Your task to perform on an android device: open app "Indeed Job Search" (install if not already installed) and enter user name: "quixotic@inbox.com" and password: "microphones" Image 0: 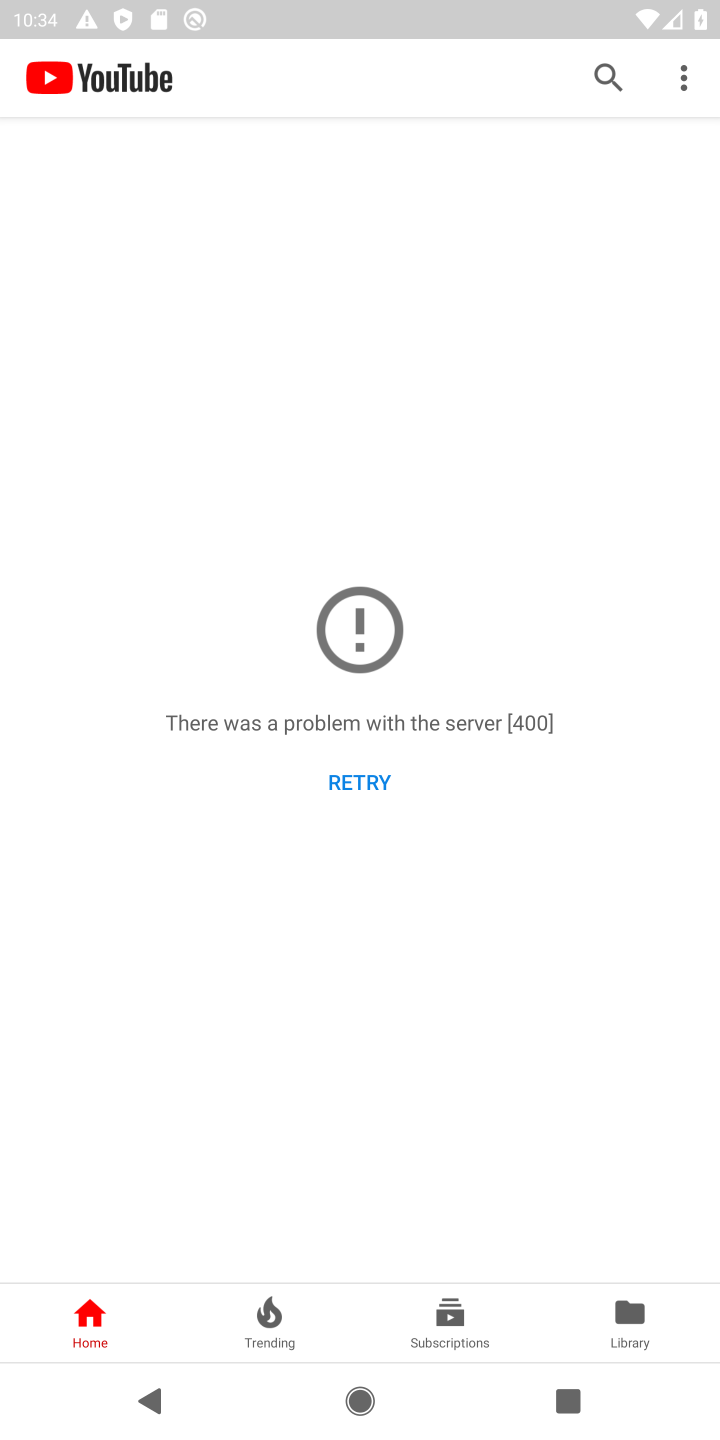
Step 0: press home button
Your task to perform on an android device: open app "Indeed Job Search" (install if not already installed) and enter user name: "quixotic@inbox.com" and password: "microphones" Image 1: 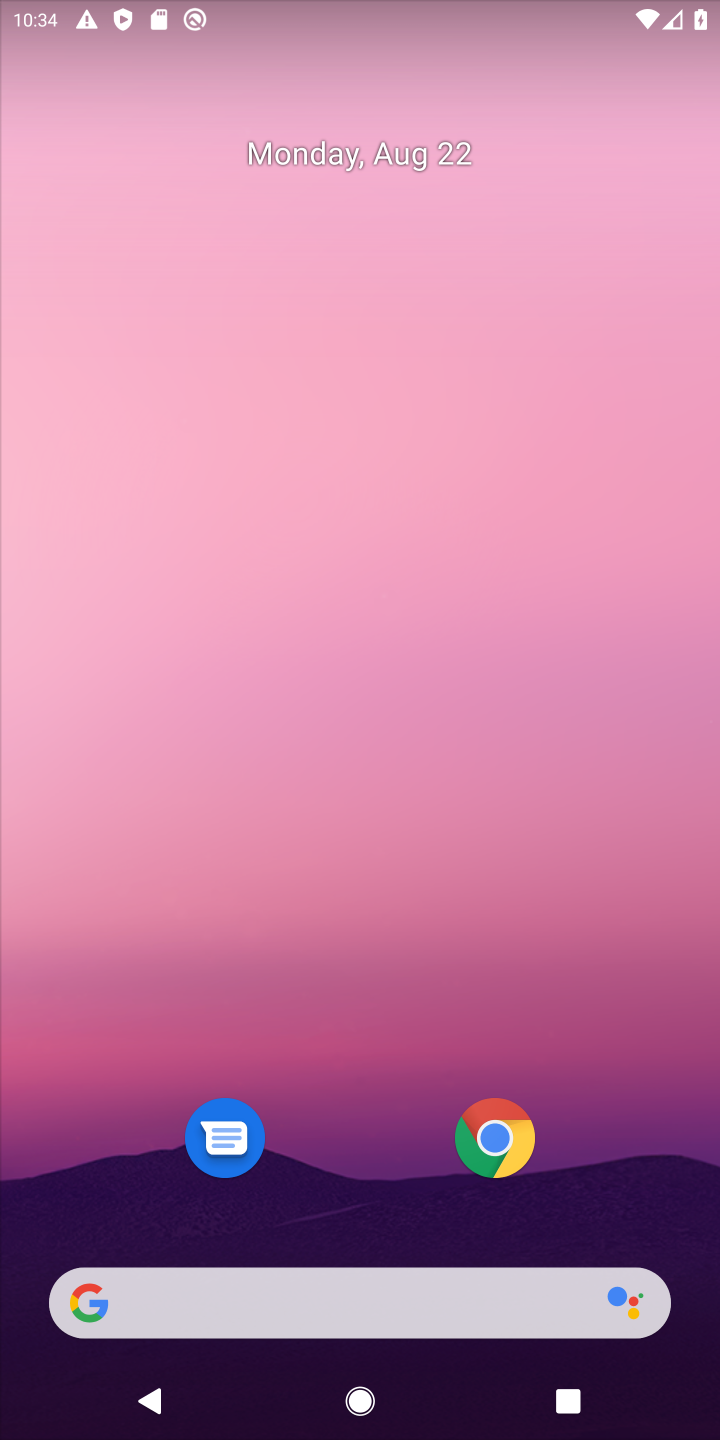
Step 1: drag from (253, 1328) to (321, 320)
Your task to perform on an android device: open app "Indeed Job Search" (install if not already installed) and enter user name: "quixotic@inbox.com" and password: "microphones" Image 2: 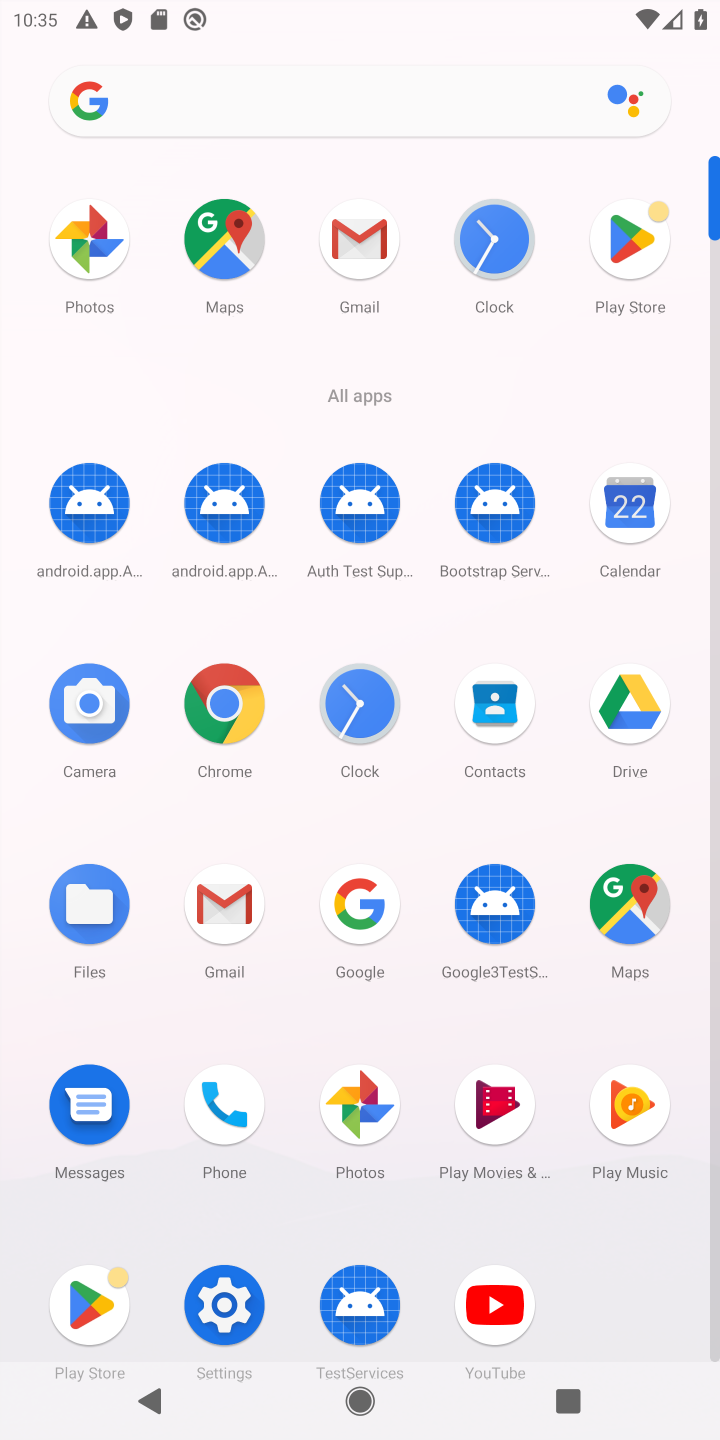
Step 2: click (100, 1305)
Your task to perform on an android device: open app "Indeed Job Search" (install if not already installed) and enter user name: "quixotic@inbox.com" and password: "microphones" Image 3: 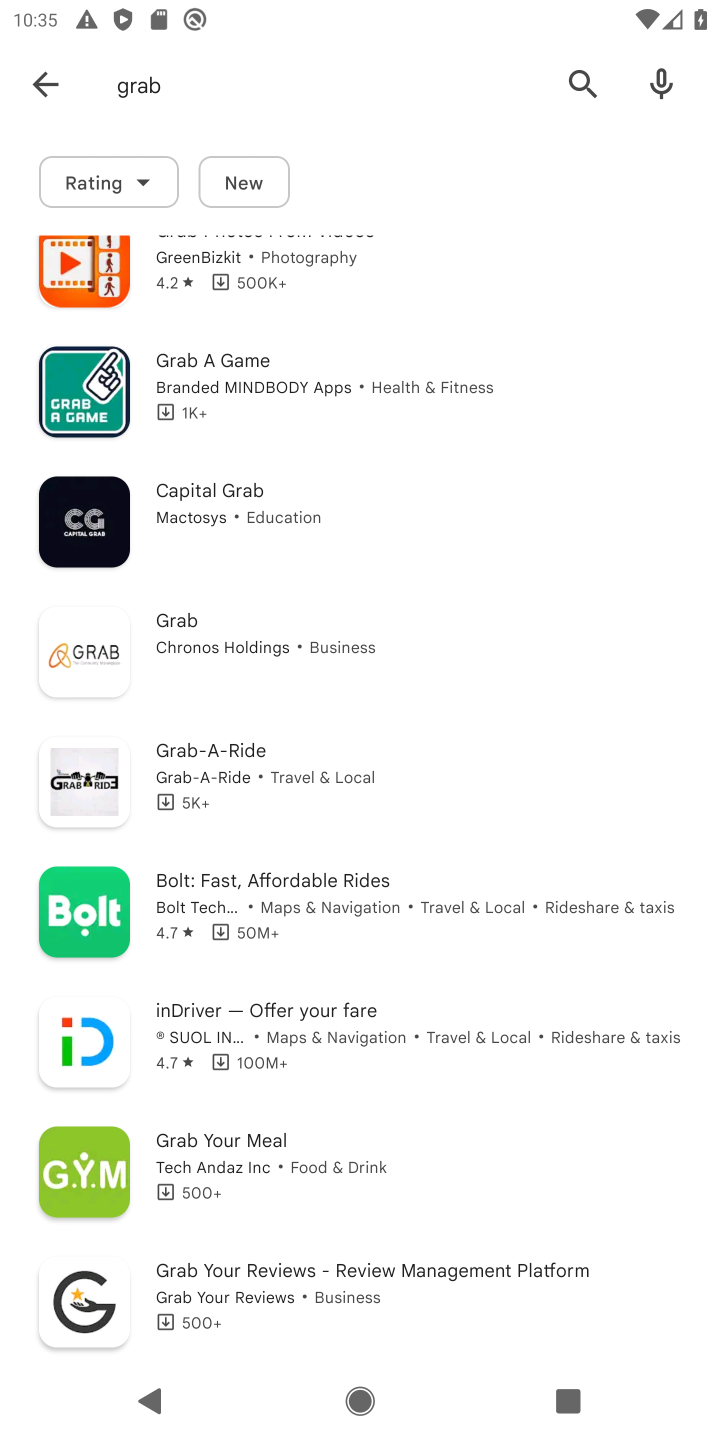
Step 3: press back button
Your task to perform on an android device: open app "Indeed Job Search" (install if not already installed) and enter user name: "quixotic@inbox.com" and password: "microphones" Image 4: 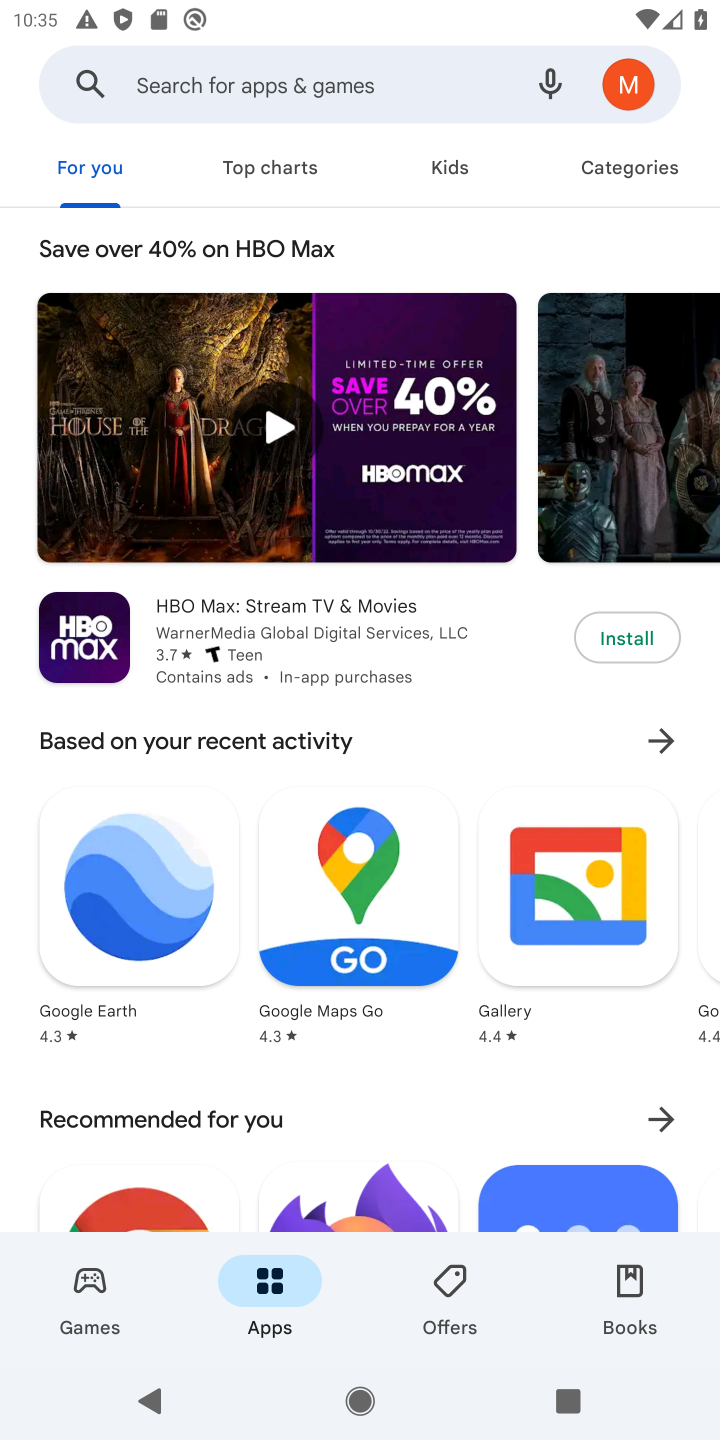
Step 4: click (378, 90)
Your task to perform on an android device: open app "Indeed Job Search" (install if not already installed) and enter user name: "quixotic@inbox.com" and password: "microphones" Image 5: 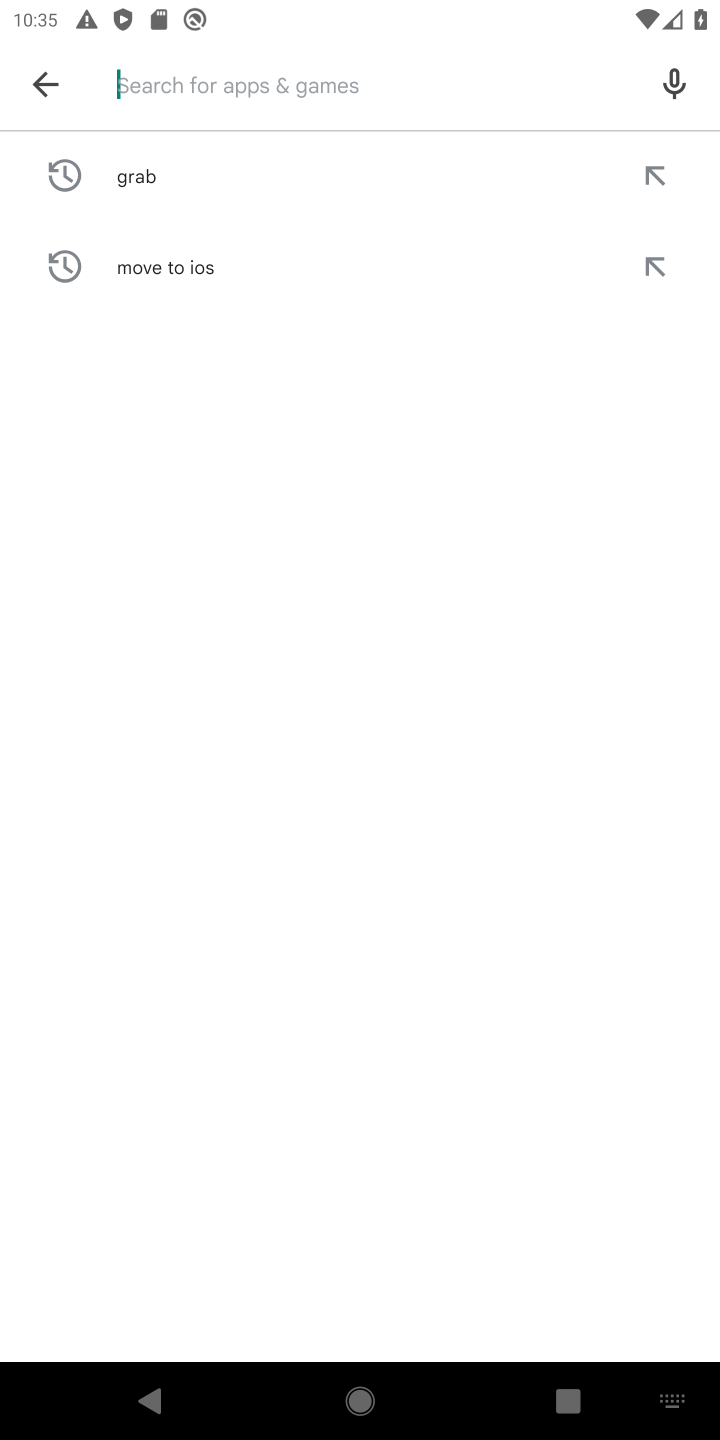
Step 5: type "Indeed Job Search"
Your task to perform on an android device: open app "Indeed Job Search" (install if not already installed) and enter user name: "quixotic@inbox.com" and password: "microphones" Image 6: 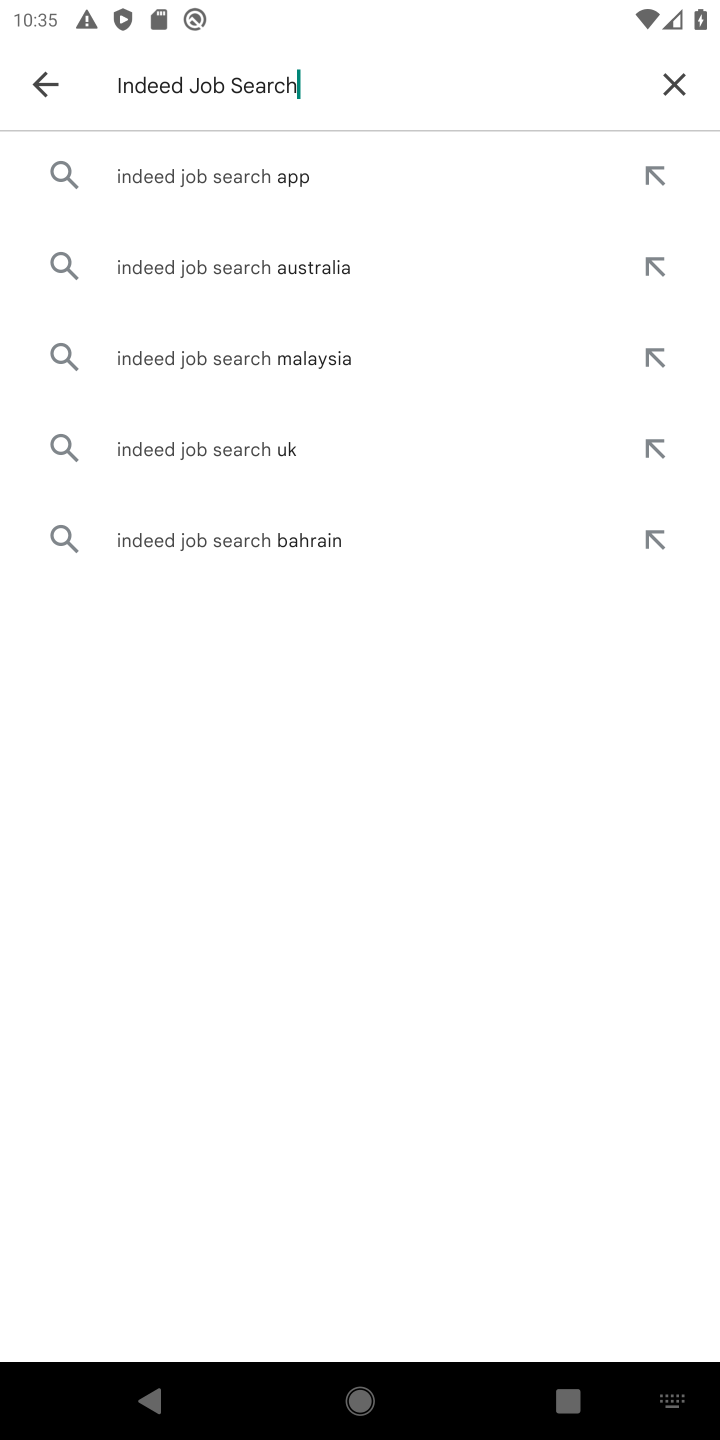
Step 6: click (234, 186)
Your task to perform on an android device: open app "Indeed Job Search" (install if not already installed) and enter user name: "quixotic@inbox.com" and password: "microphones" Image 7: 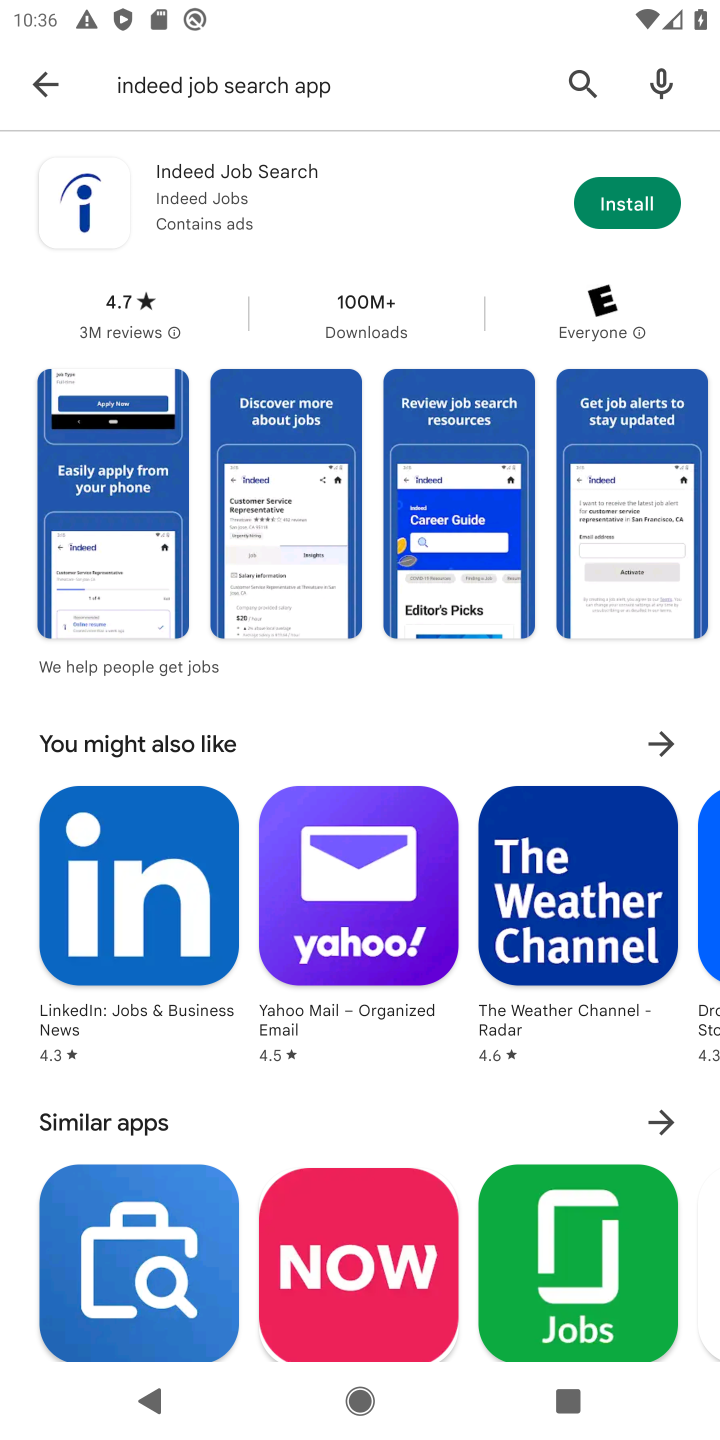
Step 7: click (620, 211)
Your task to perform on an android device: open app "Indeed Job Search" (install if not already installed) and enter user name: "quixotic@inbox.com" and password: "microphones" Image 8: 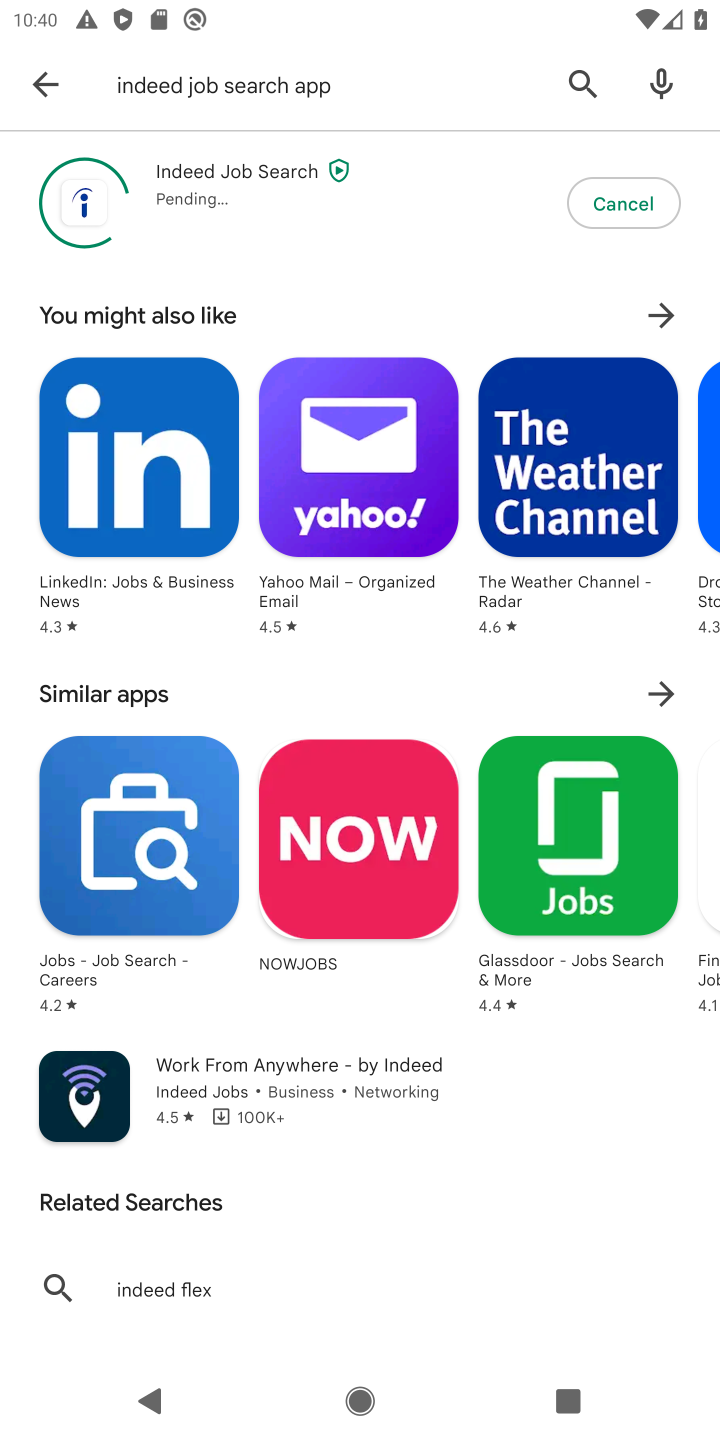
Step 8: task complete